Your task to perform on an android device: check the backup settings in the google photos Image 0: 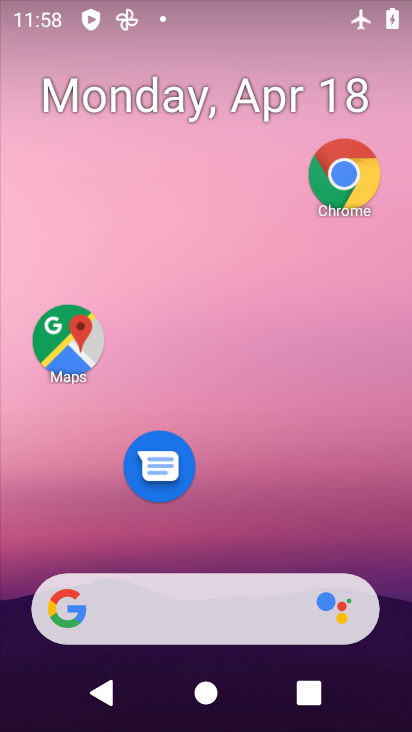
Step 0: drag from (338, 481) to (257, 242)
Your task to perform on an android device: check the backup settings in the google photos Image 1: 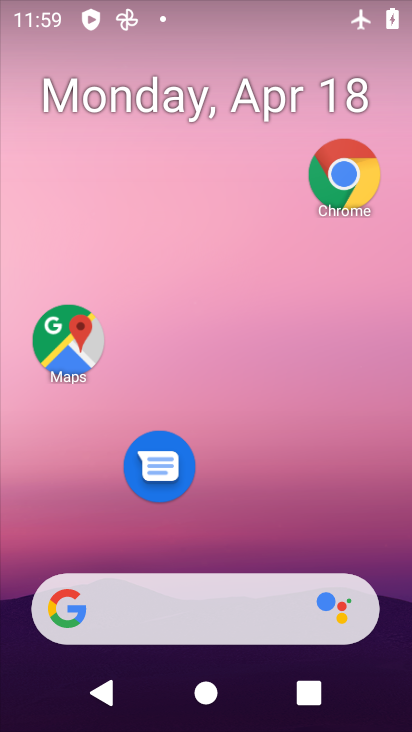
Step 1: drag from (266, 507) to (239, 331)
Your task to perform on an android device: check the backup settings in the google photos Image 2: 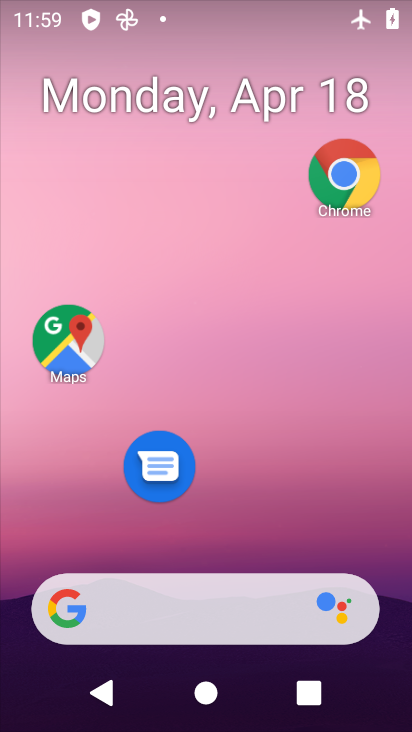
Step 2: drag from (253, 456) to (163, 0)
Your task to perform on an android device: check the backup settings in the google photos Image 3: 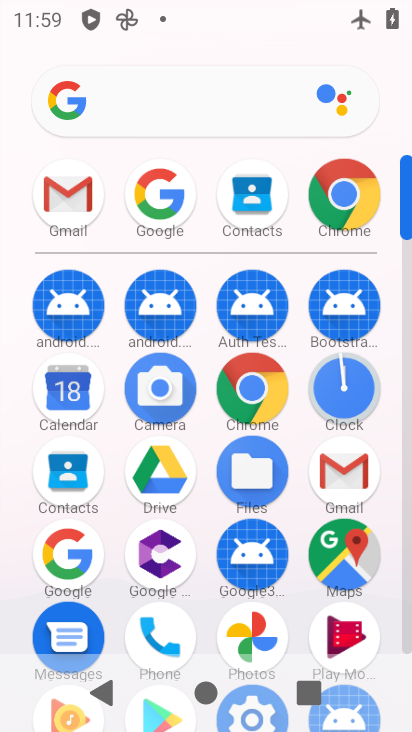
Step 3: click (264, 626)
Your task to perform on an android device: check the backup settings in the google photos Image 4: 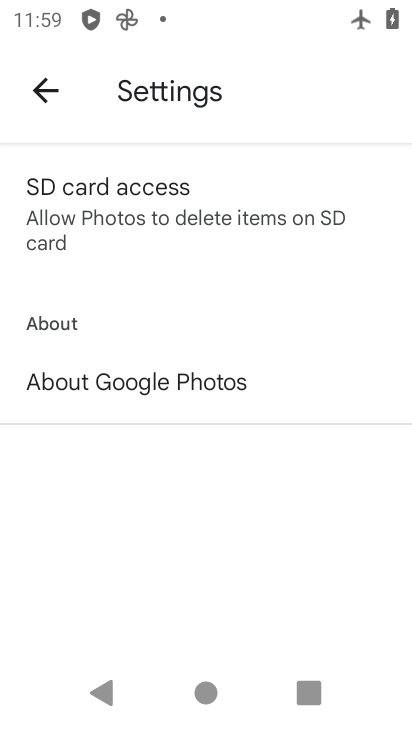
Step 4: press home button
Your task to perform on an android device: check the backup settings in the google photos Image 5: 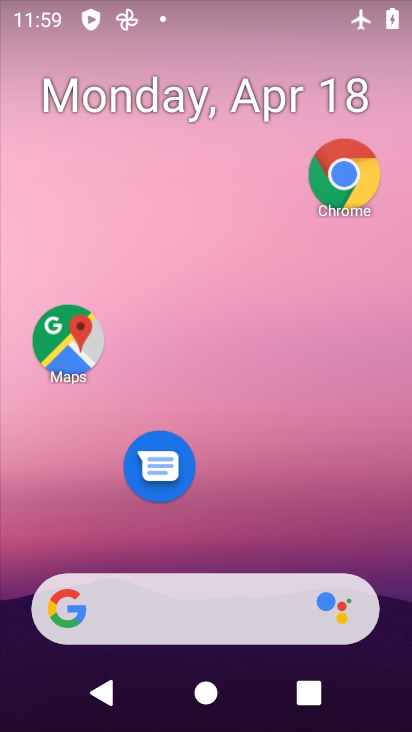
Step 5: drag from (217, 602) to (183, 405)
Your task to perform on an android device: check the backup settings in the google photos Image 6: 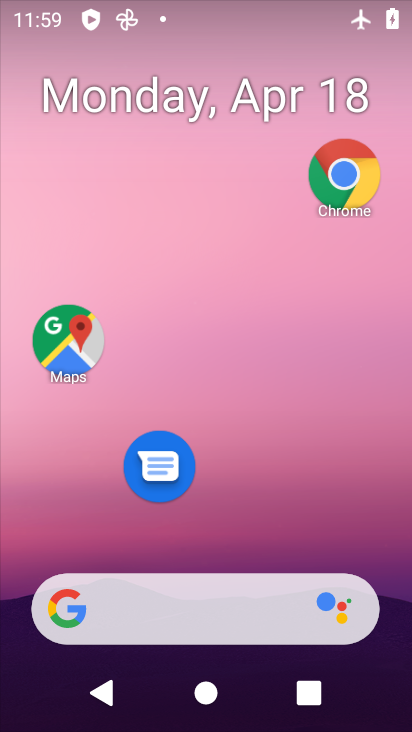
Step 6: drag from (218, 504) to (191, 129)
Your task to perform on an android device: check the backup settings in the google photos Image 7: 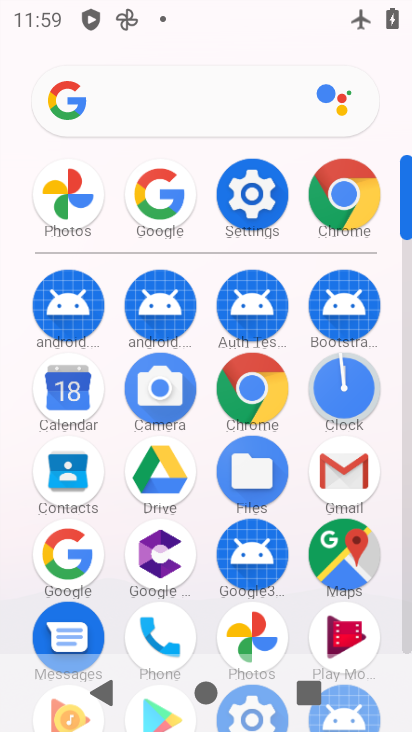
Step 7: click (409, 487)
Your task to perform on an android device: check the backup settings in the google photos Image 8: 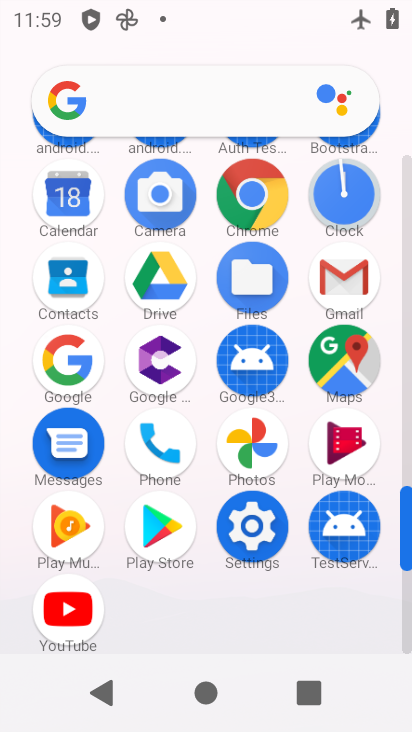
Step 8: click (262, 441)
Your task to perform on an android device: check the backup settings in the google photos Image 9: 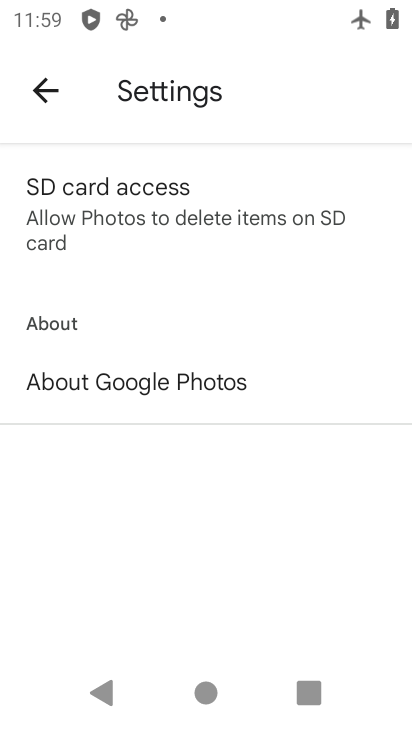
Step 9: click (34, 105)
Your task to perform on an android device: check the backup settings in the google photos Image 10: 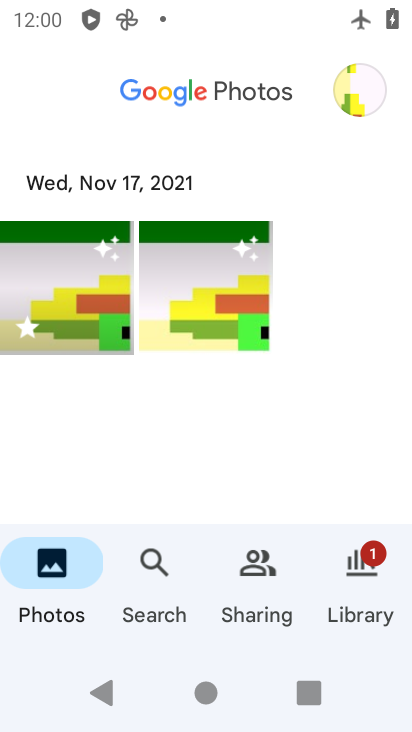
Step 10: click (356, 85)
Your task to perform on an android device: check the backup settings in the google photos Image 11: 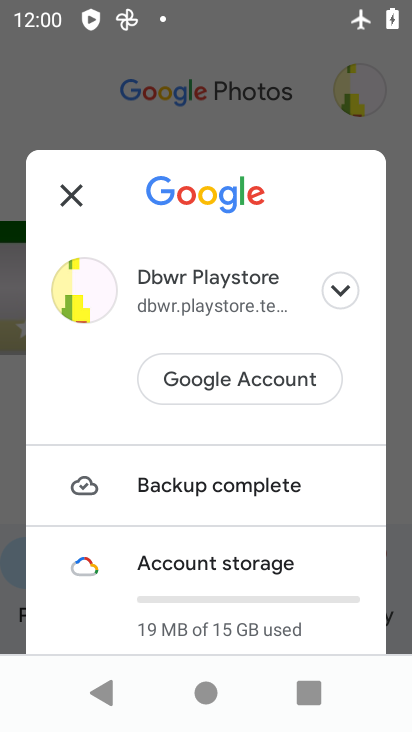
Step 11: click (139, 298)
Your task to perform on an android device: check the backup settings in the google photos Image 12: 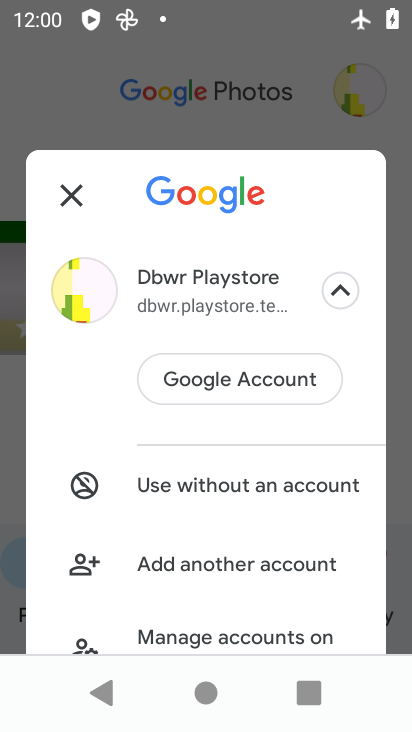
Step 12: click (183, 291)
Your task to perform on an android device: check the backup settings in the google photos Image 13: 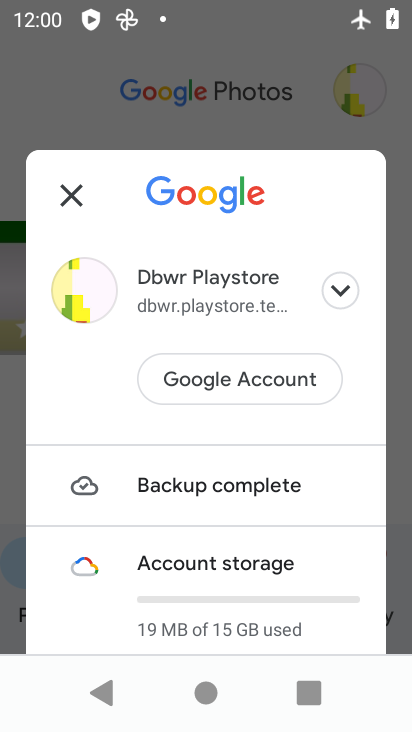
Step 13: click (274, 486)
Your task to perform on an android device: check the backup settings in the google photos Image 14: 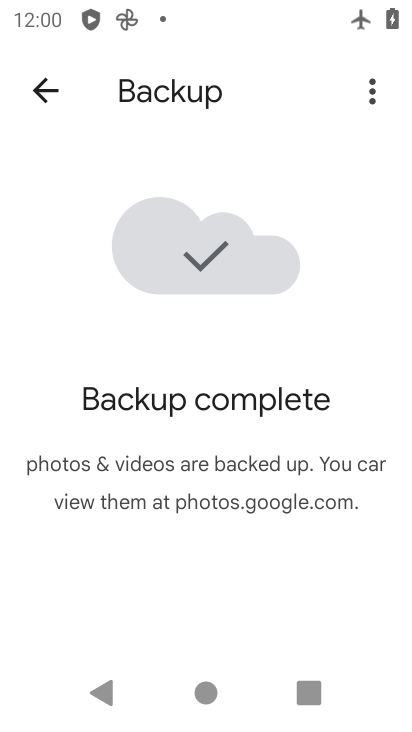
Step 14: task complete